Your task to perform on an android device: Open the phone app and click the voicemail tab. Image 0: 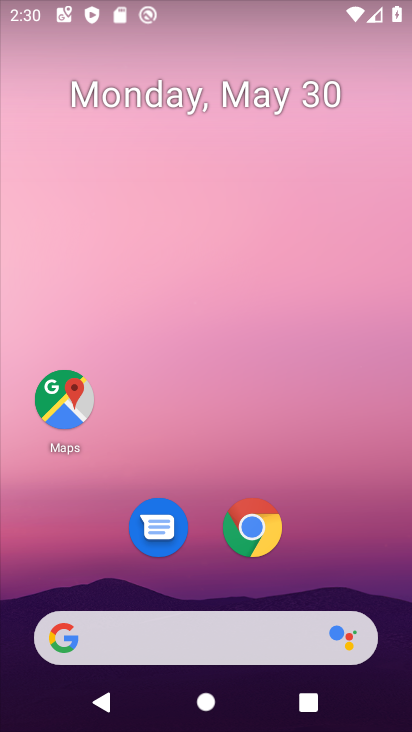
Step 0: drag from (295, 564) to (325, 59)
Your task to perform on an android device: Open the phone app and click the voicemail tab. Image 1: 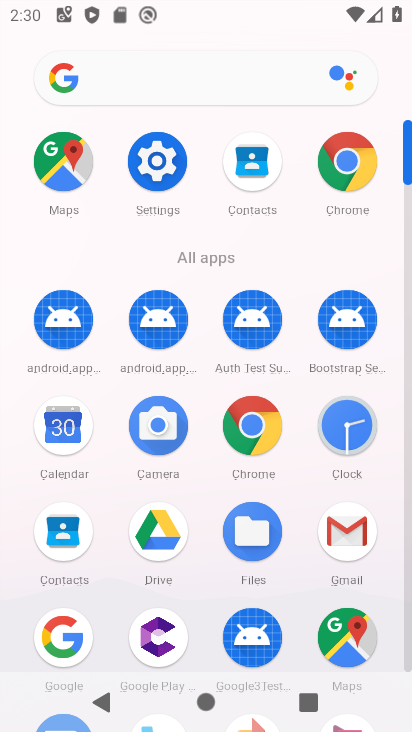
Step 1: drag from (283, 388) to (319, 124)
Your task to perform on an android device: Open the phone app and click the voicemail tab. Image 2: 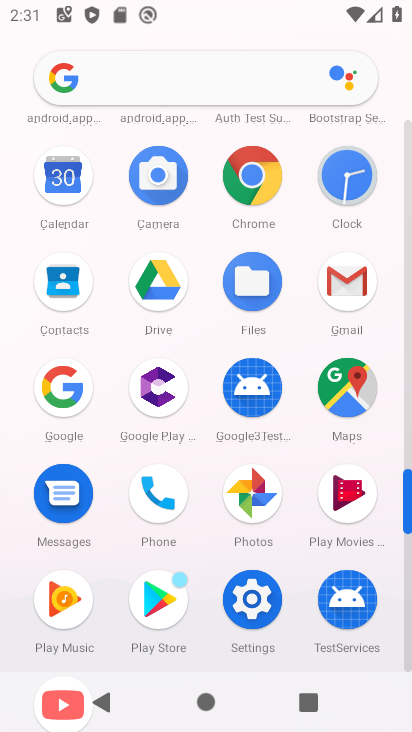
Step 2: click (164, 493)
Your task to perform on an android device: Open the phone app and click the voicemail tab. Image 3: 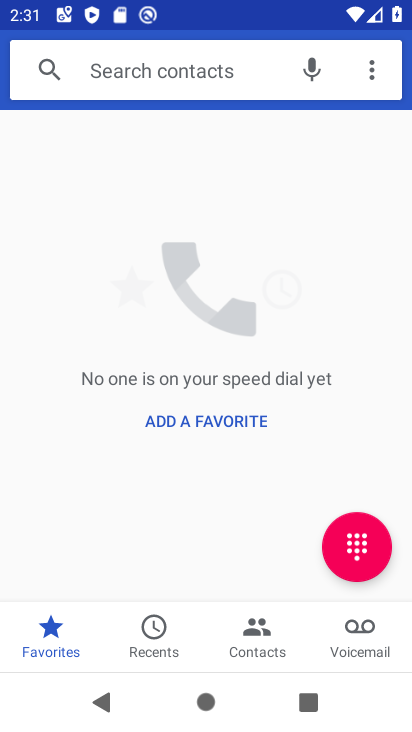
Step 3: click (338, 625)
Your task to perform on an android device: Open the phone app and click the voicemail tab. Image 4: 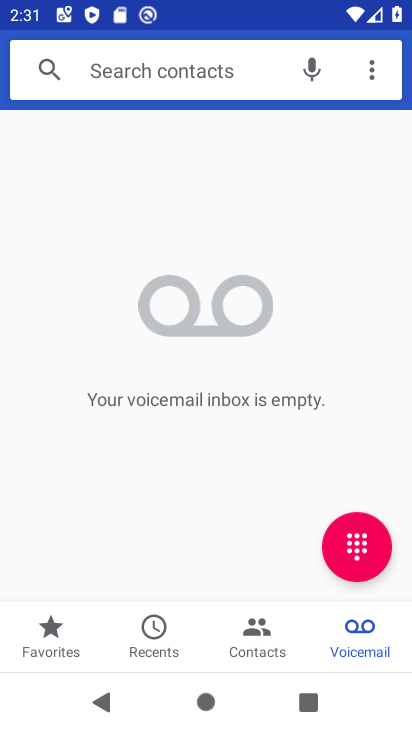
Step 4: task complete